Your task to perform on an android device: open the mobile data screen to see how much data has been used Image 0: 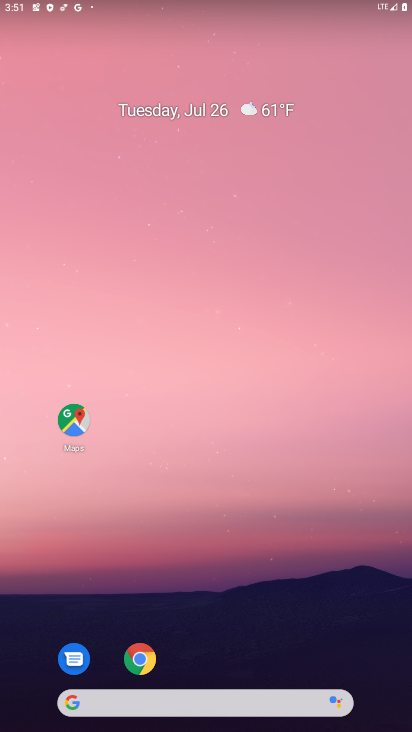
Step 0: press home button
Your task to perform on an android device: open the mobile data screen to see how much data has been used Image 1: 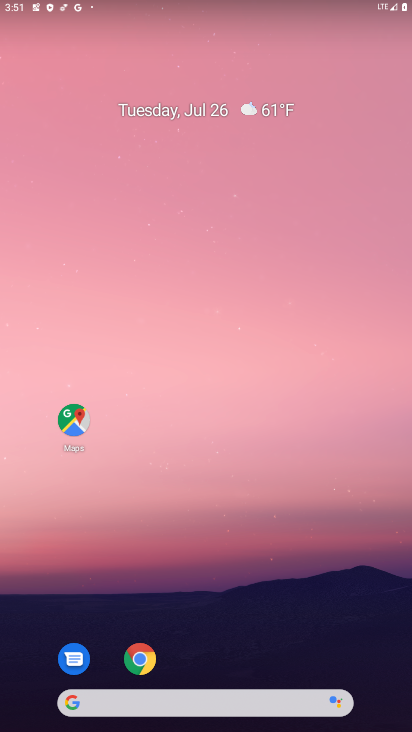
Step 1: drag from (324, 600) to (203, 0)
Your task to perform on an android device: open the mobile data screen to see how much data has been used Image 2: 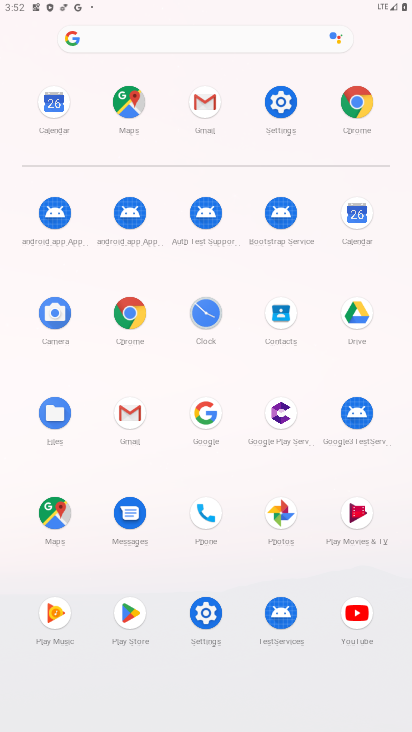
Step 2: click (284, 105)
Your task to perform on an android device: open the mobile data screen to see how much data has been used Image 3: 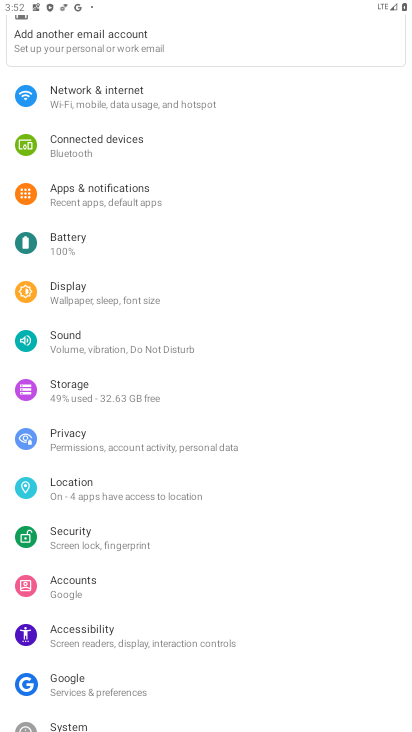
Step 3: click (120, 98)
Your task to perform on an android device: open the mobile data screen to see how much data has been used Image 4: 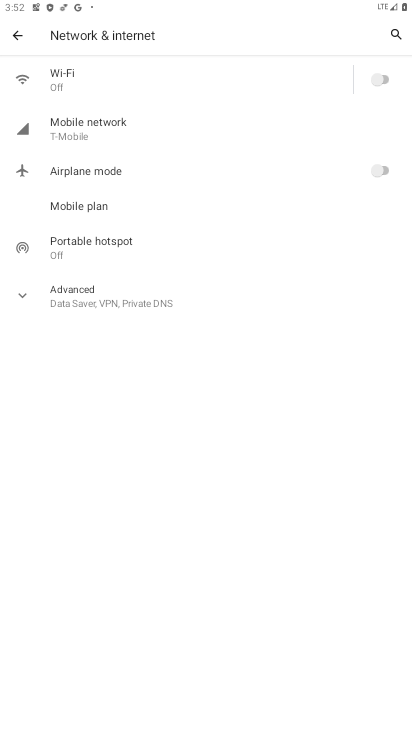
Step 4: click (80, 120)
Your task to perform on an android device: open the mobile data screen to see how much data has been used Image 5: 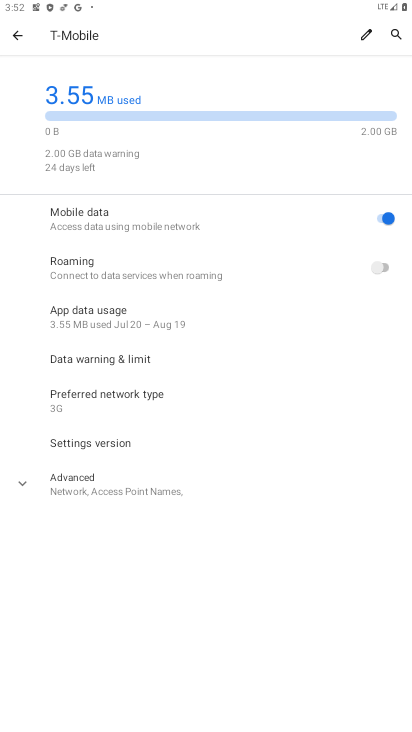
Step 5: task complete